Your task to perform on an android device: set an alarm Image 0: 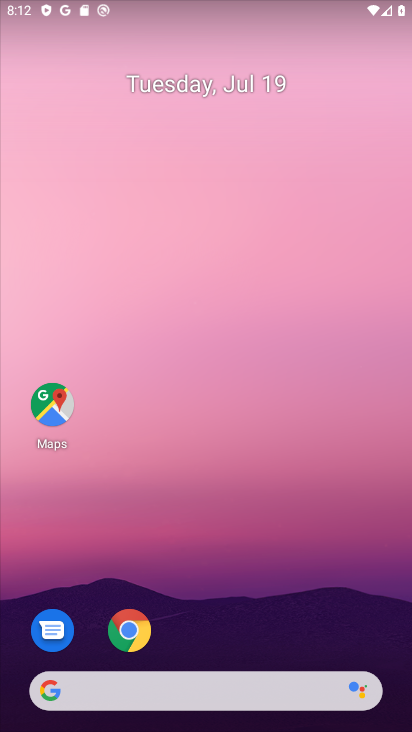
Step 0: drag from (262, 583) to (232, 14)
Your task to perform on an android device: set an alarm Image 1: 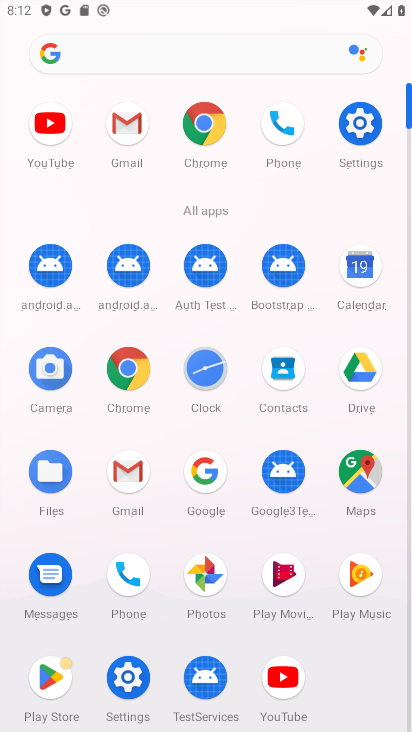
Step 1: click (200, 375)
Your task to perform on an android device: set an alarm Image 2: 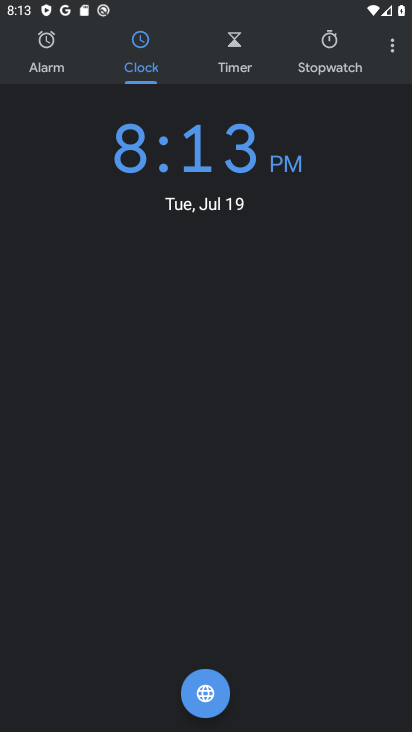
Step 2: click (46, 53)
Your task to perform on an android device: set an alarm Image 3: 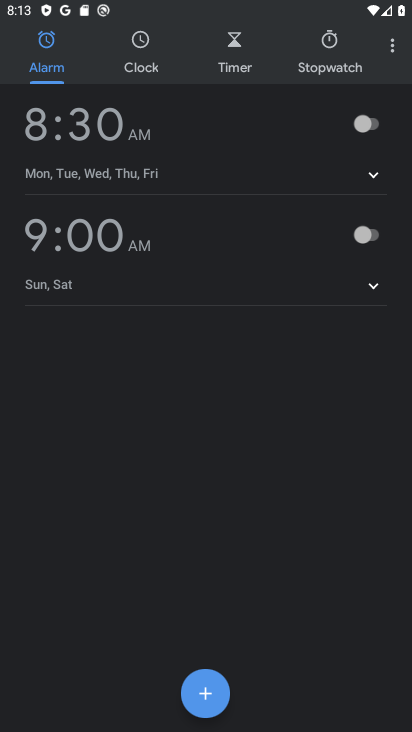
Step 3: click (209, 700)
Your task to perform on an android device: set an alarm Image 4: 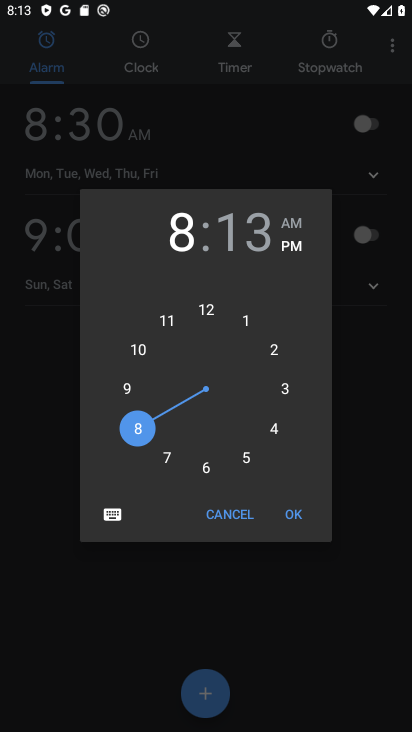
Step 4: click (292, 508)
Your task to perform on an android device: set an alarm Image 5: 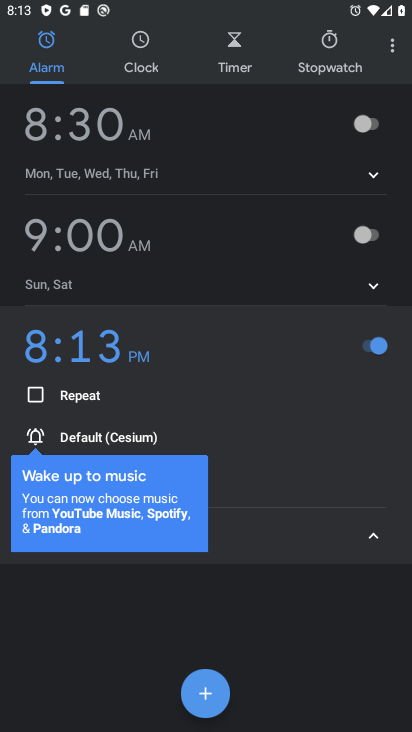
Step 5: click (369, 526)
Your task to perform on an android device: set an alarm Image 6: 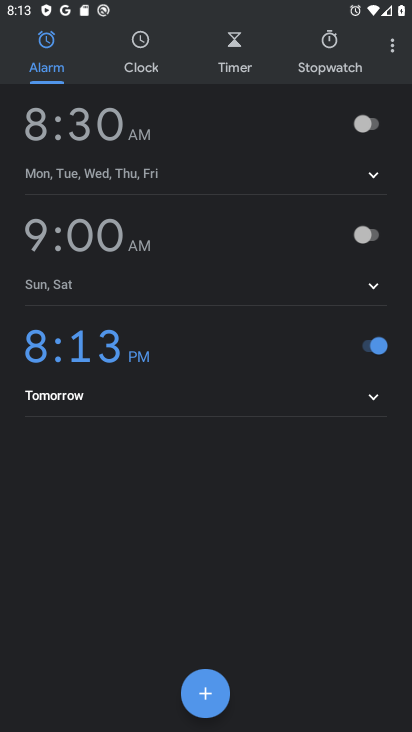
Step 6: task complete